Your task to perform on an android device: move a message to another label in the gmail app Image 0: 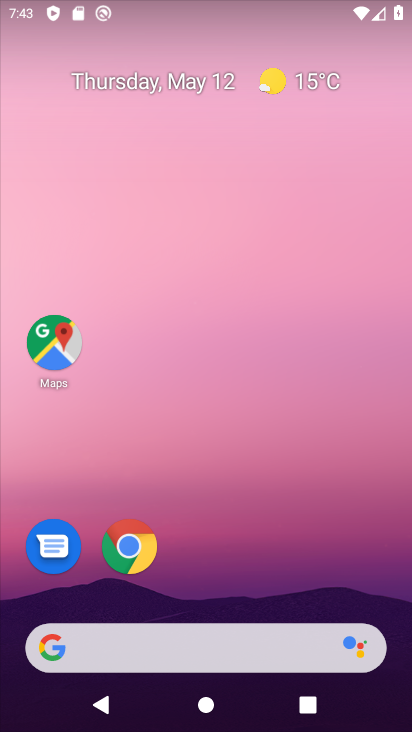
Step 0: press home button
Your task to perform on an android device: move a message to another label in the gmail app Image 1: 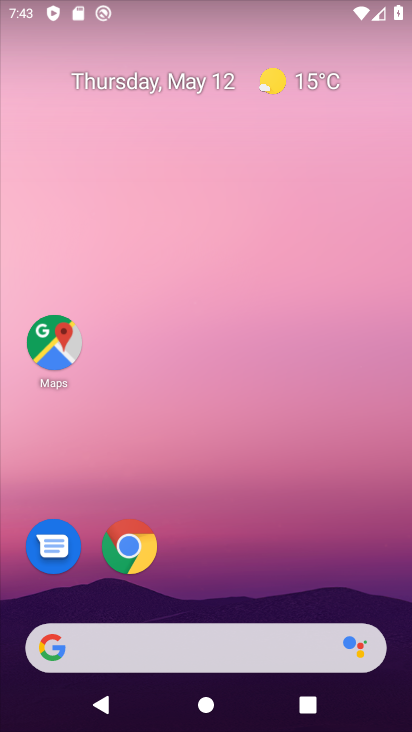
Step 1: drag from (151, 642) to (306, 155)
Your task to perform on an android device: move a message to another label in the gmail app Image 2: 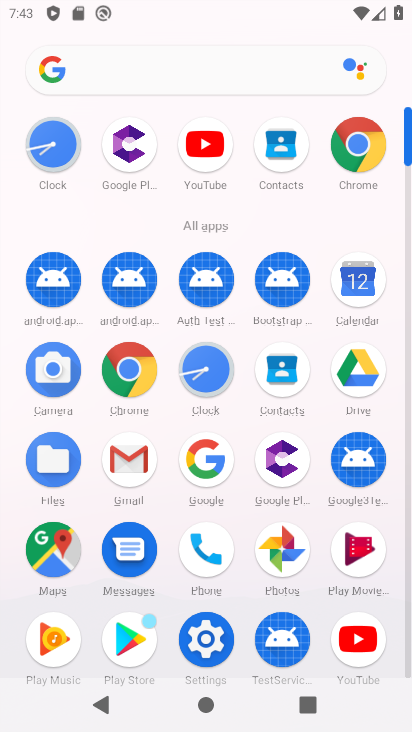
Step 2: click (129, 463)
Your task to perform on an android device: move a message to another label in the gmail app Image 3: 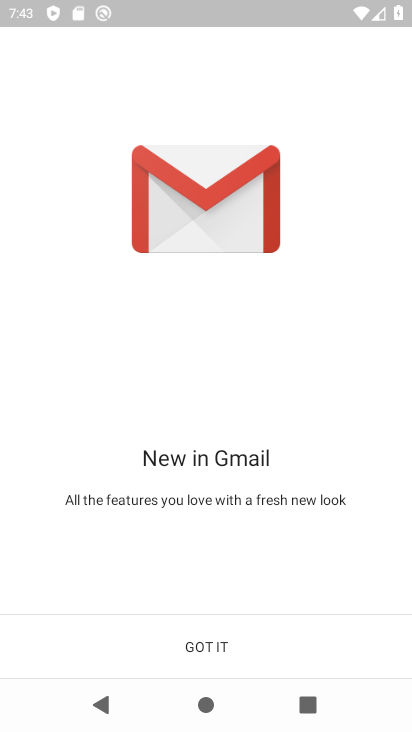
Step 3: click (227, 655)
Your task to perform on an android device: move a message to another label in the gmail app Image 4: 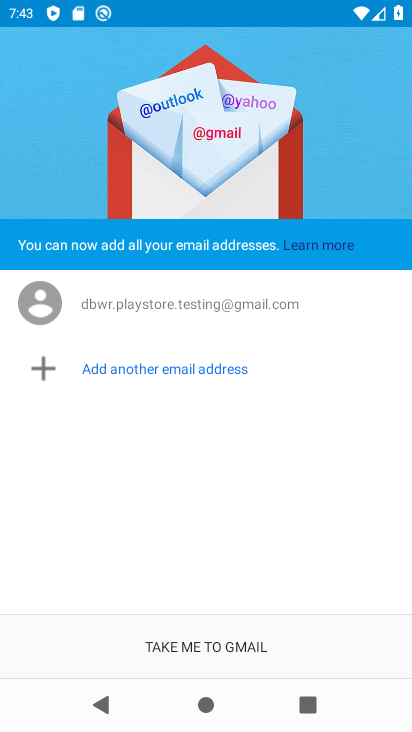
Step 4: click (227, 655)
Your task to perform on an android device: move a message to another label in the gmail app Image 5: 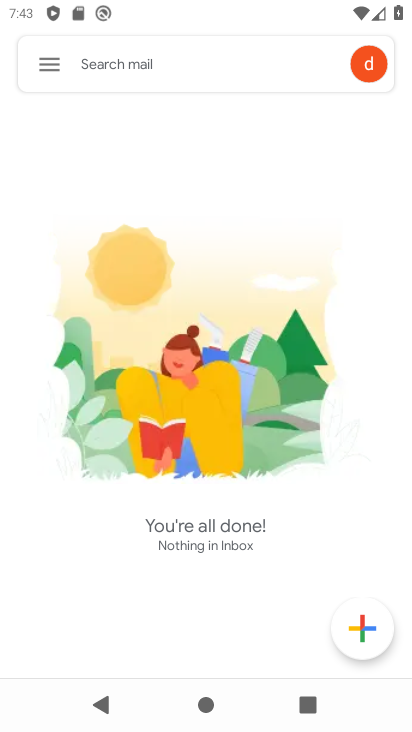
Step 5: task complete